Your task to perform on an android device: What's on the menu at Subway? Image 0: 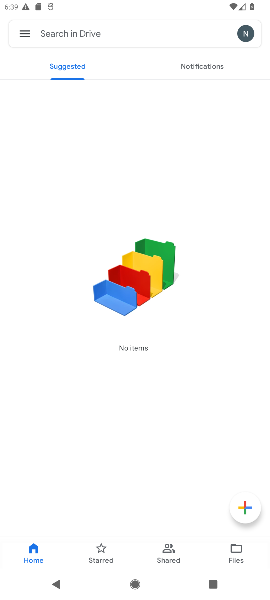
Step 0: press home button
Your task to perform on an android device: What's on the menu at Subway? Image 1: 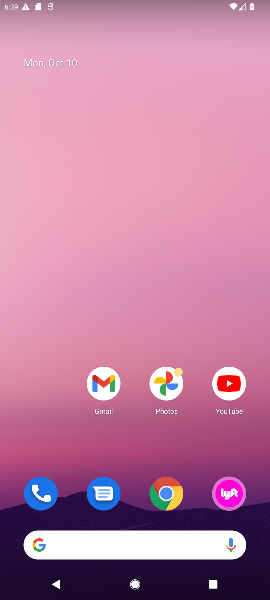
Step 1: click (133, 540)
Your task to perform on an android device: What's on the menu at Subway? Image 2: 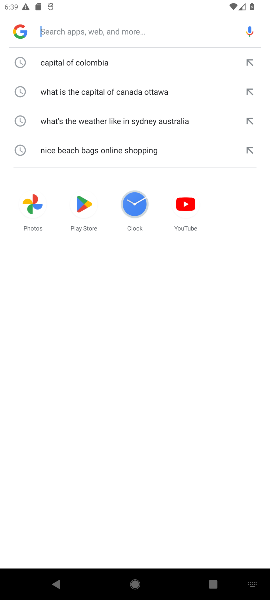
Step 2: type "Subway"
Your task to perform on an android device: What's on the menu at Subway? Image 3: 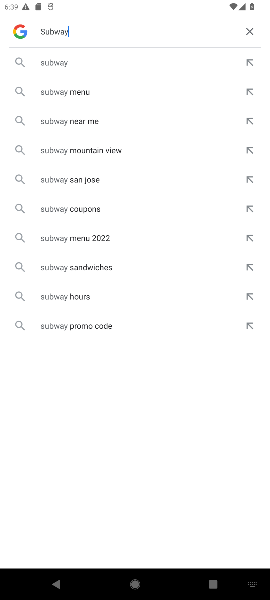
Step 3: click (65, 62)
Your task to perform on an android device: What's on the menu at Subway? Image 4: 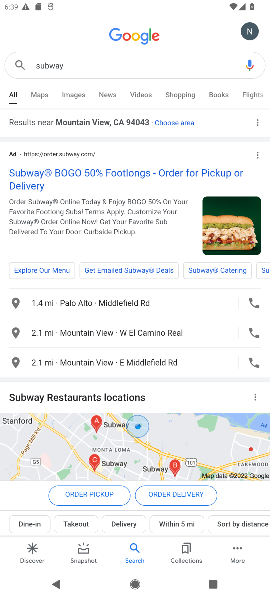
Step 4: task complete